Your task to perform on an android device: toggle notification dots Image 0: 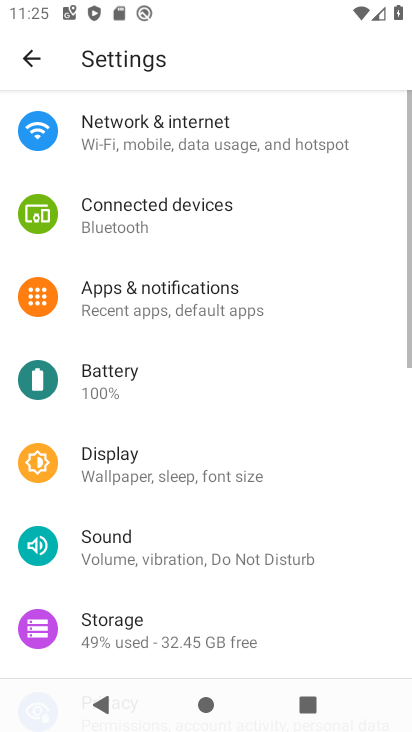
Step 0: press home button
Your task to perform on an android device: toggle notification dots Image 1: 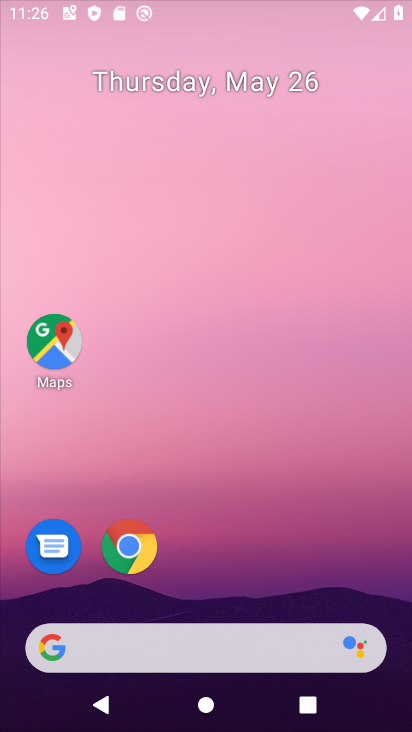
Step 1: drag from (235, 554) to (294, 6)
Your task to perform on an android device: toggle notification dots Image 2: 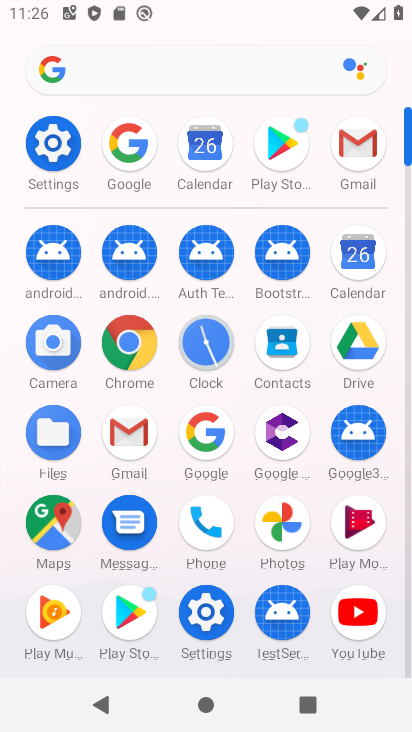
Step 2: click (21, 167)
Your task to perform on an android device: toggle notification dots Image 3: 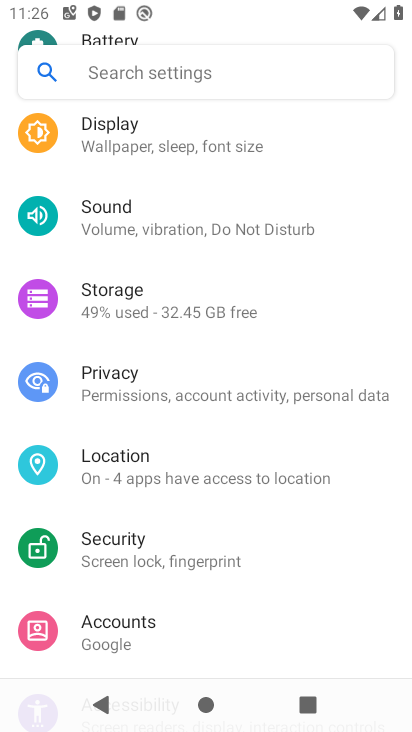
Step 3: drag from (141, 147) to (225, 439)
Your task to perform on an android device: toggle notification dots Image 4: 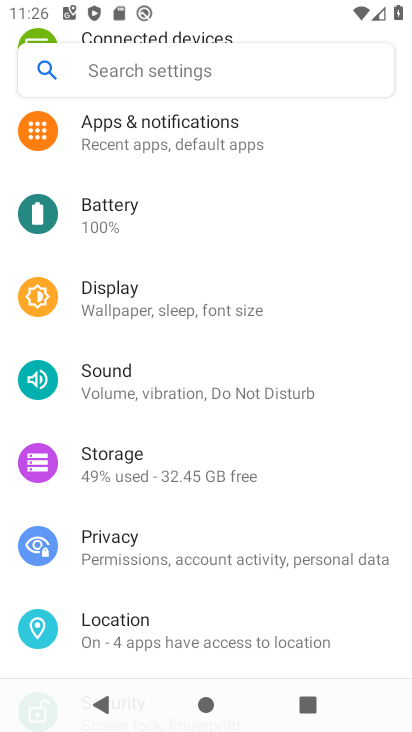
Step 4: click (145, 144)
Your task to perform on an android device: toggle notification dots Image 5: 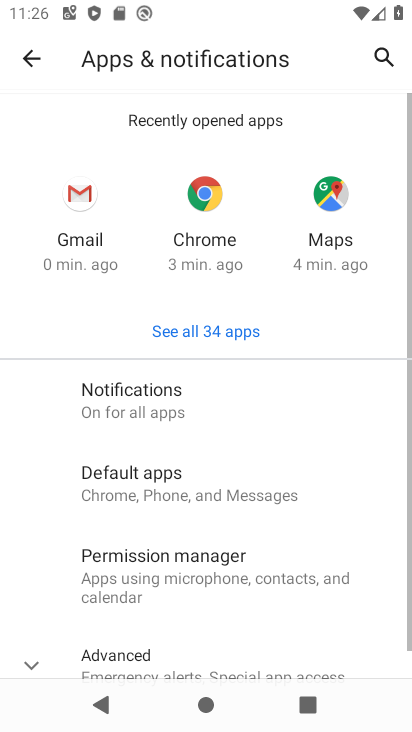
Step 5: click (98, 397)
Your task to perform on an android device: toggle notification dots Image 6: 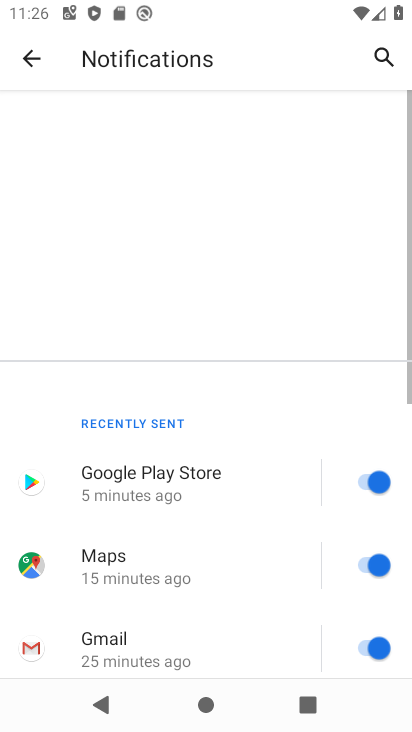
Step 6: drag from (241, 475) to (204, 28)
Your task to perform on an android device: toggle notification dots Image 7: 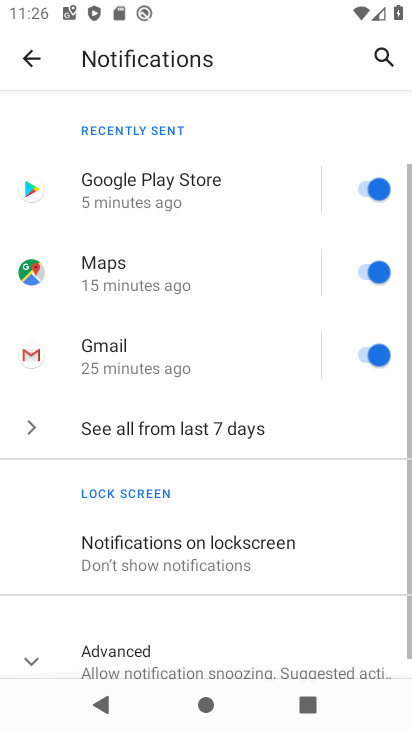
Step 7: click (120, 641)
Your task to perform on an android device: toggle notification dots Image 8: 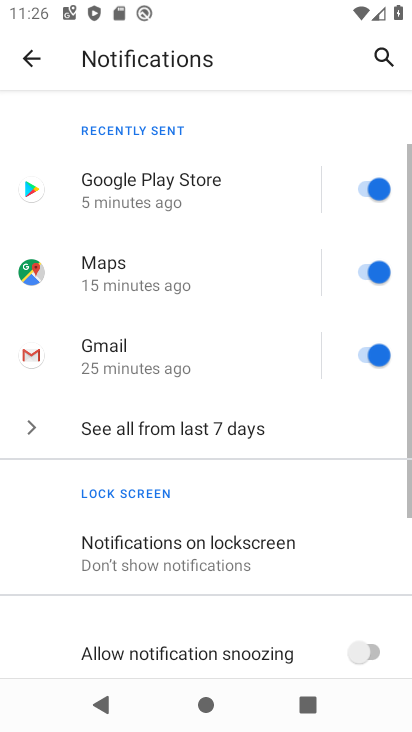
Step 8: drag from (240, 610) to (280, 245)
Your task to perform on an android device: toggle notification dots Image 9: 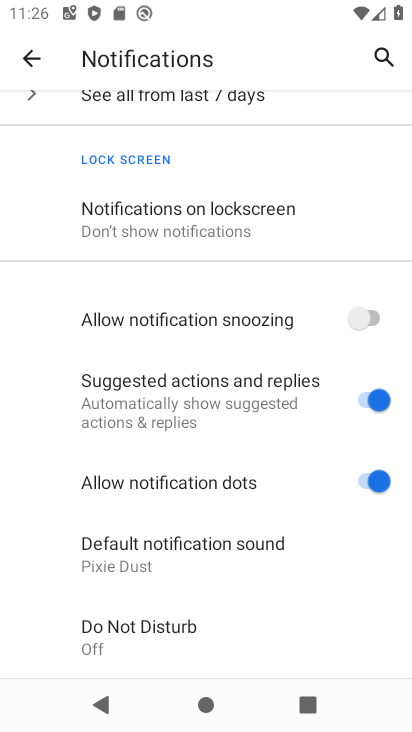
Step 9: click (377, 482)
Your task to perform on an android device: toggle notification dots Image 10: 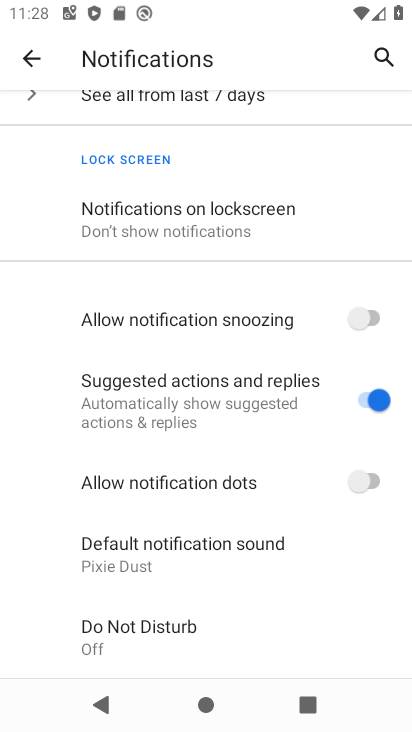
Step 10: task complete